Your task to perform on an android device: Open the stopwatch Image 0: 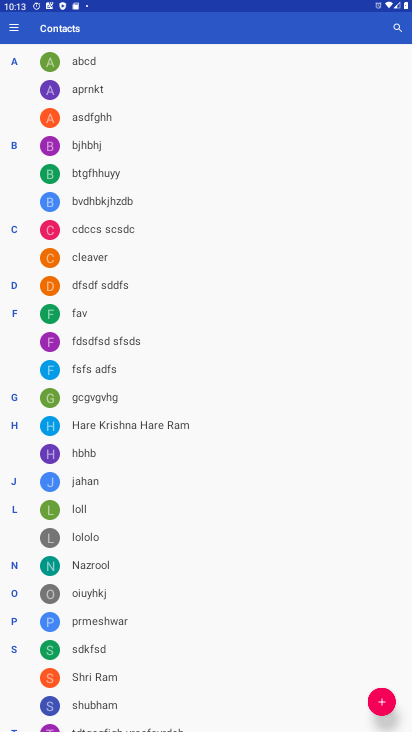
Step 0: press home button
Your task to perform on an android device: Open the stopwatch Image 1: 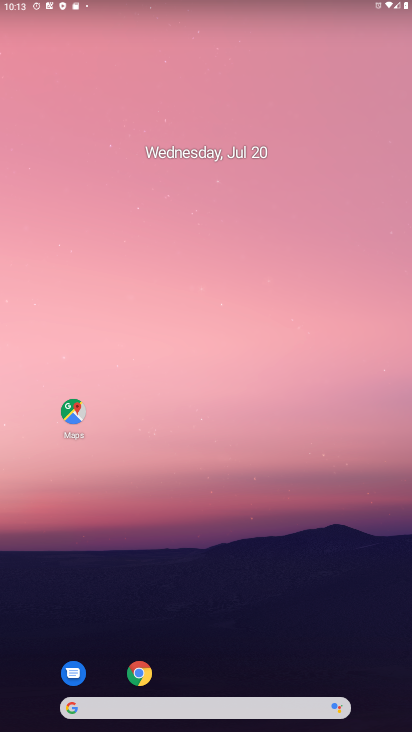
Step 1: drag from (228, 728) to (228, 240)
Your task to perform on an android device: Open the stopwatch Image 2: 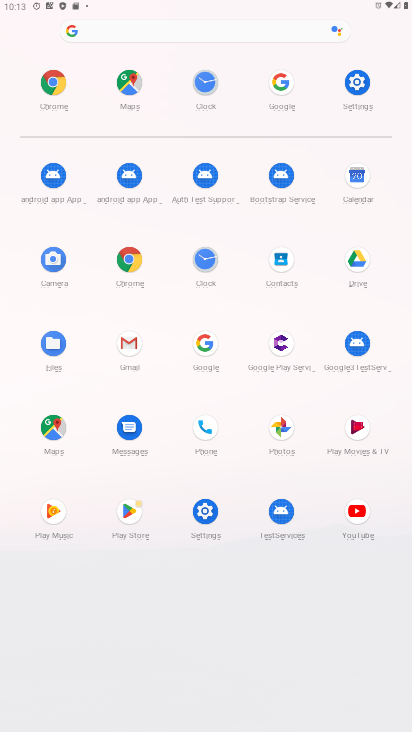
Step 2: click (204, 264)
Your task to perform on an android device: Open the stopwatch Image 3: 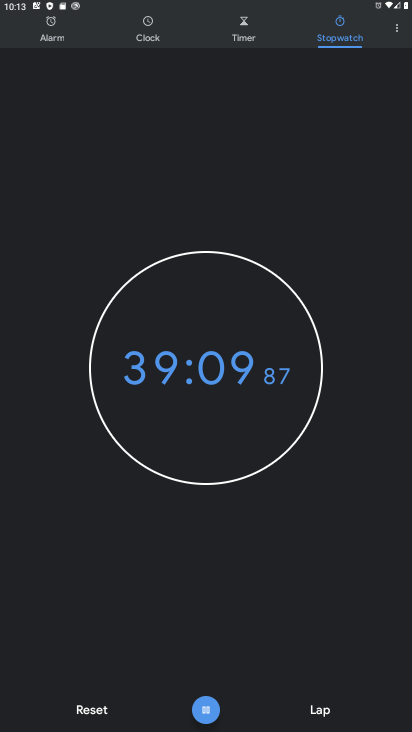
Step 3: task complete